Your task to perform on an android device: open a bookmark in the chrome app Image 0: 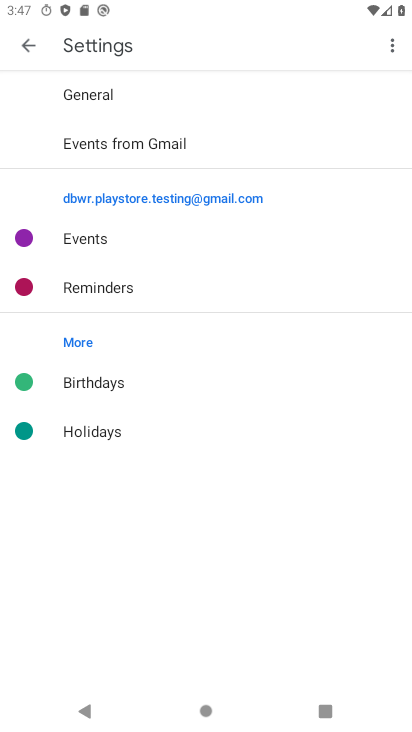
Step 0: press home button
Your task to perform on an android device: open a bookmark in the chrome app Image 1: 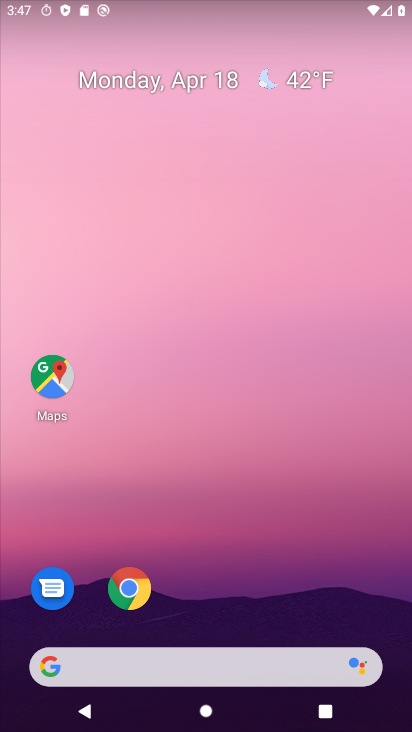
Step 1: click (137, 611)
Your task to perform on an android device: open a bookmark in the chrome app Image 2: 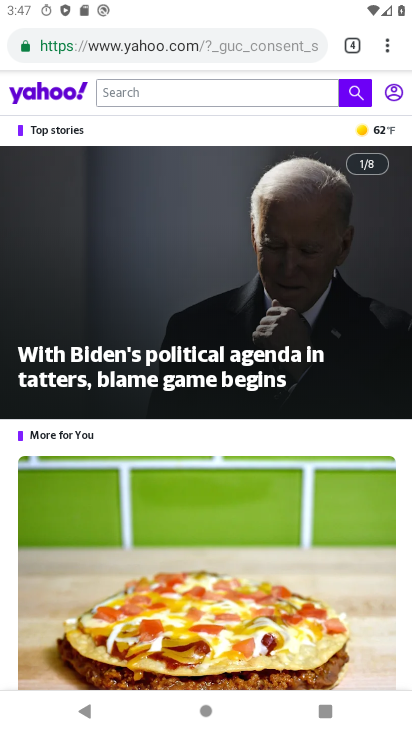
Step 2: click (395, 50)
Your task to perform on an android device: open a bookmark in the chrome app Image 3: 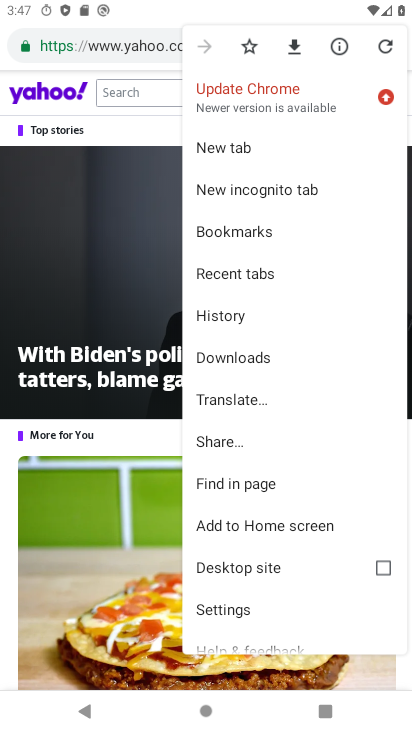
Step 3: click (212, 245)
Your task to perform on an android device: open a bookmark in the chrome app Image 4: 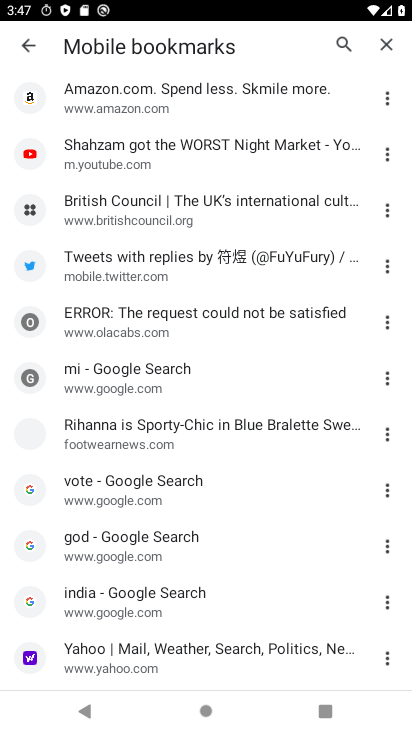
Step 4: click (212, 245)
Your task to perform on an android device: open a bookmark in the chrome app Image 5: 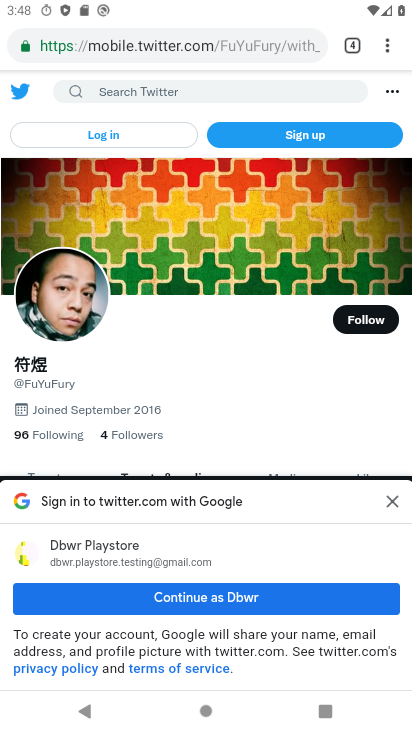
Step 5: task complete